Your task to perform on an android device: Turn off the flashlight Image 0: 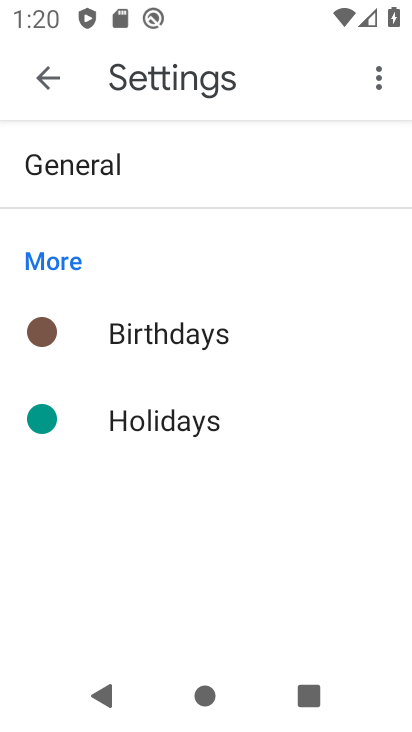
Step 0: press home button
Your task to perform on an android device: Turn off the flashlight Image 1: 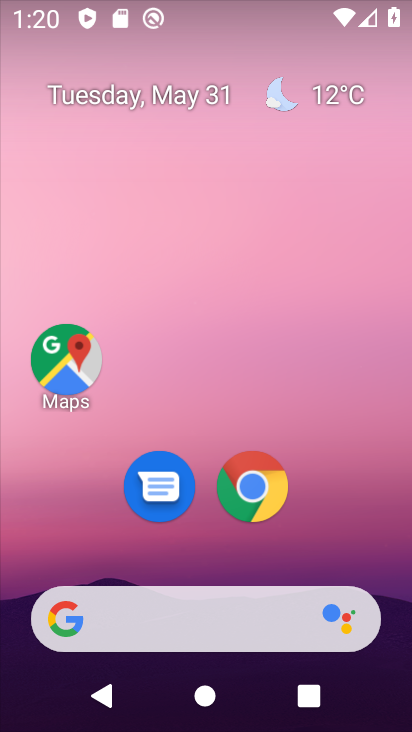
Step 1: drag from (196, 554) to (246, 102)
Your task to perform on an android device: Turn off the flashlight Image 2: 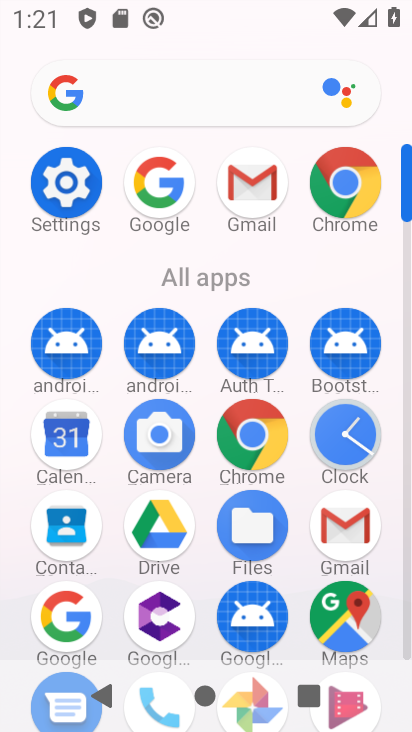
Step 2: click (65, 188)
Your task to perform on an android device: Turn off the flashlight Image 3: 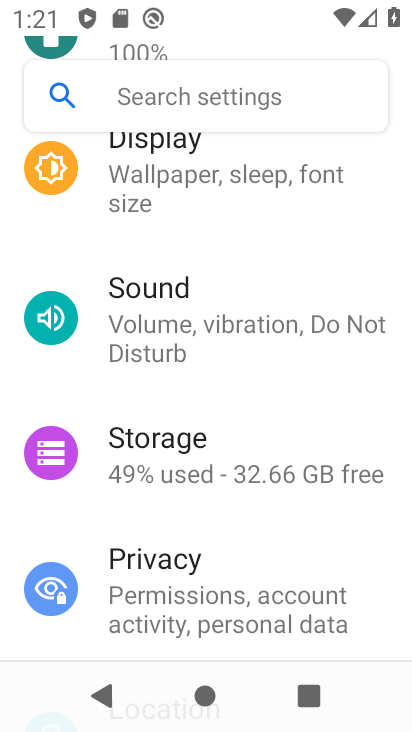
Step 3: task complete